Your task to perform on an android device: Open Amazon Image 0: 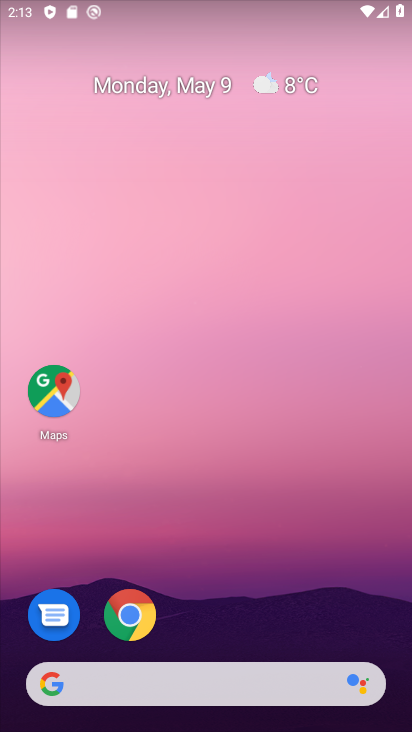
Step 0: click (116, 623)
Your task to perform on an android device: Open Amazon Image 1: 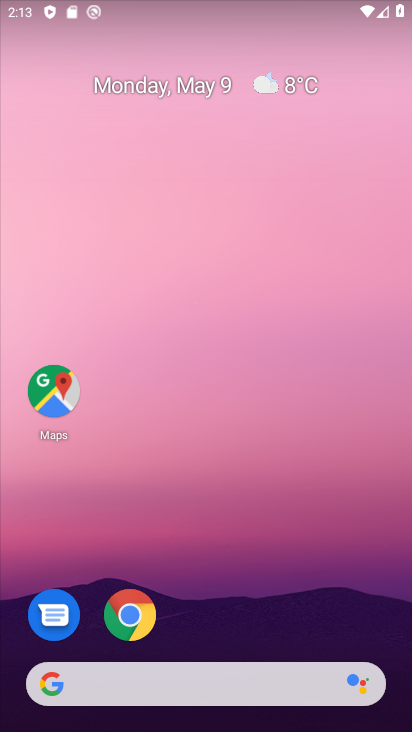
Step 1: click (116, 623)
Your task to perform on an android device: Open Amazon Image 2: 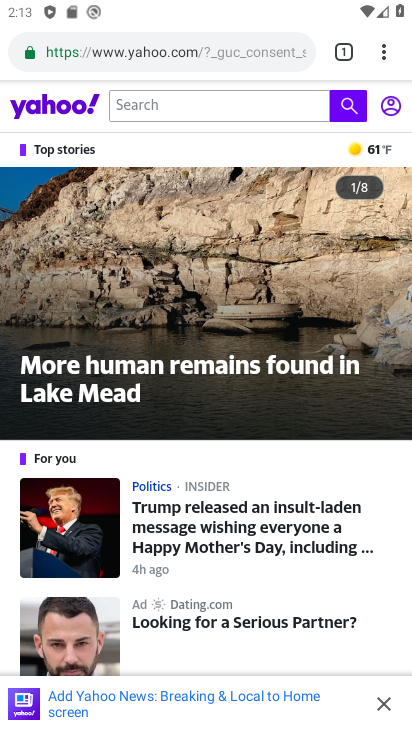
Step 2: press back button
Your task to perform on an android device: Open Amazon Image 3: 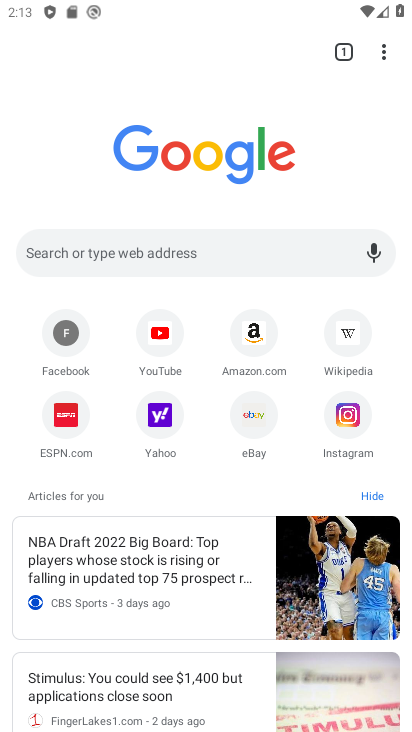
Step 3: click (272, 336)
Your task to perform on an android device: Open Amazon Image 4: 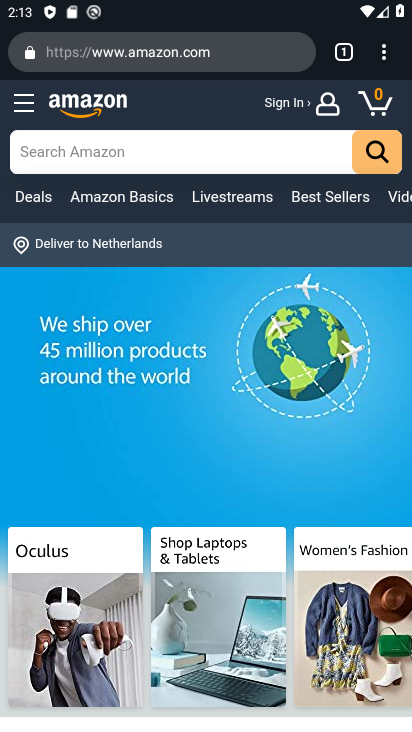
Step 4: task complete